Your task to perform on an android device: Go to Google Image 0: 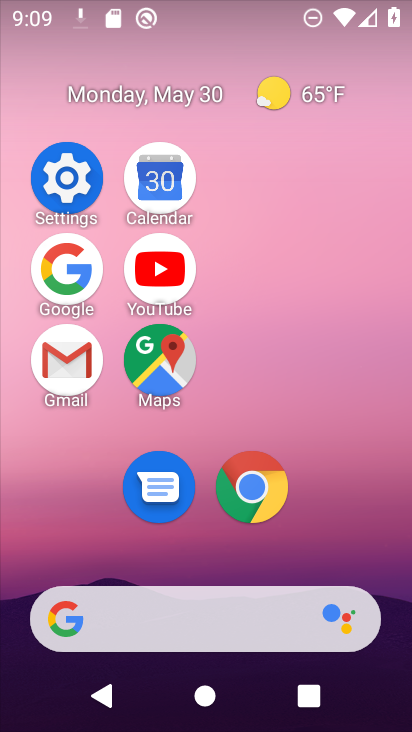
Step 0: click (68, 281)
Your task to perform on an android device: Go to Google Image 1: 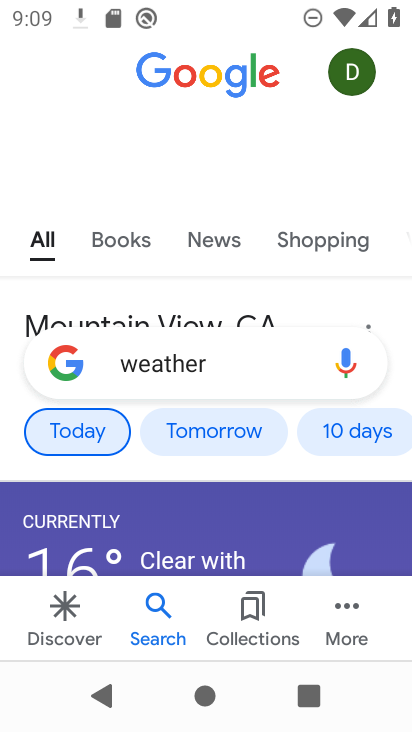
Step 1: task complete